Your task to perform on an android device: Open the map Image 0: 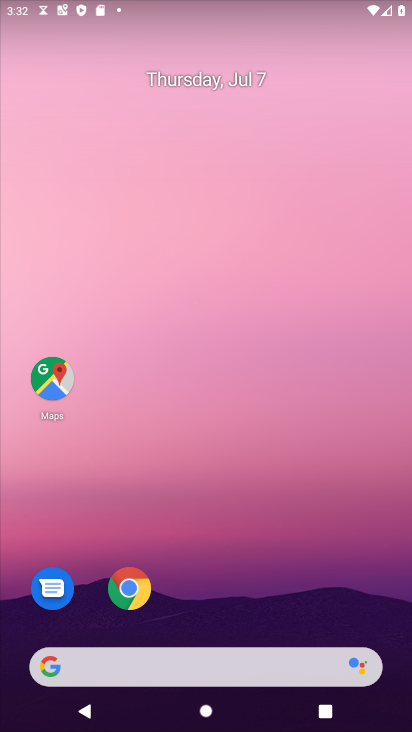
Step 0: click (47, 383)
Your task to perform on an android device: Open the map Image 1: 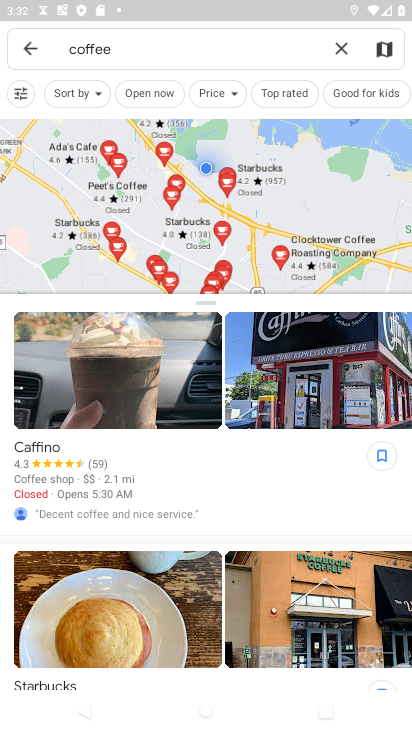
Step 1: click (339, 42)
Your task to perform on an android device: Open the map Image 2: 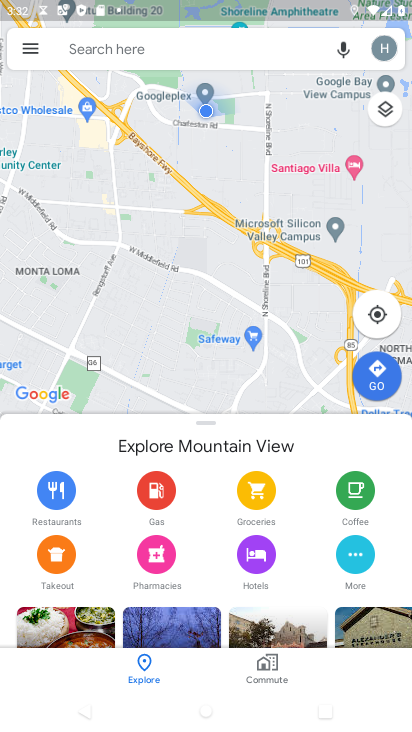
Step 2: task complete